Your task to perform on an android device: open chrome privacy settings Image 0: 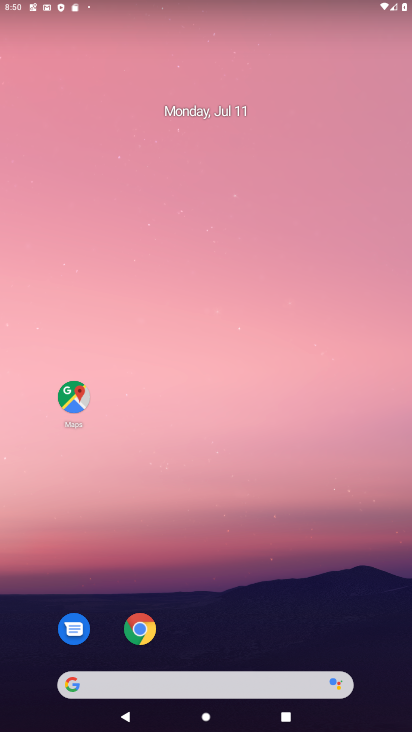
Step 0: click (146, 628)
Your task to perform on an android device: open chrome privacy settings Image 1: 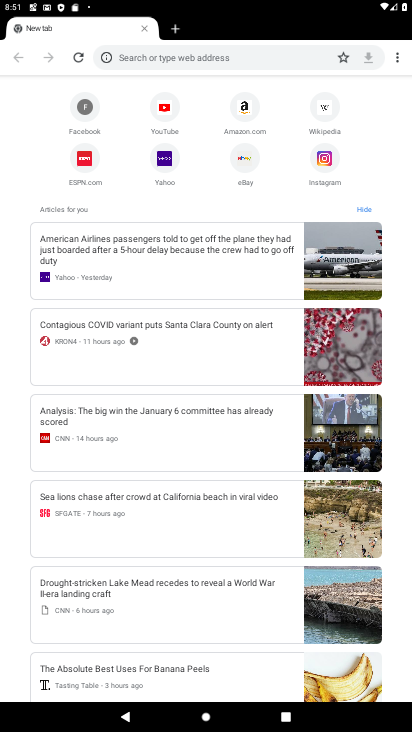
Step 1: click (403, 56)
Your task to perform on an android device: open chrome privacy settings Image 2: 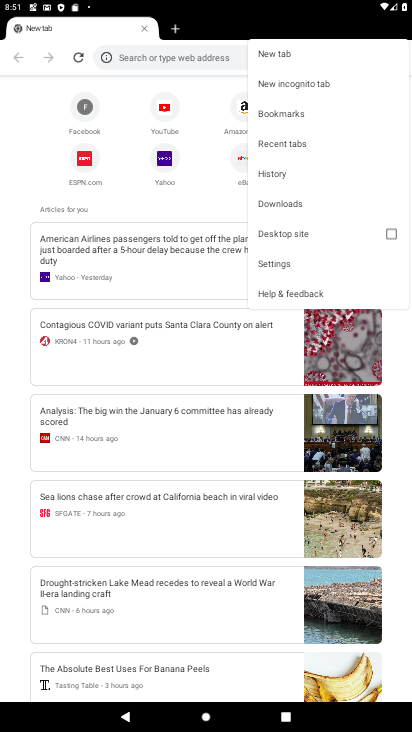
Step 2: click (274, 261)
Your task to perform on an android device: open chrome privacy settings Image 3: 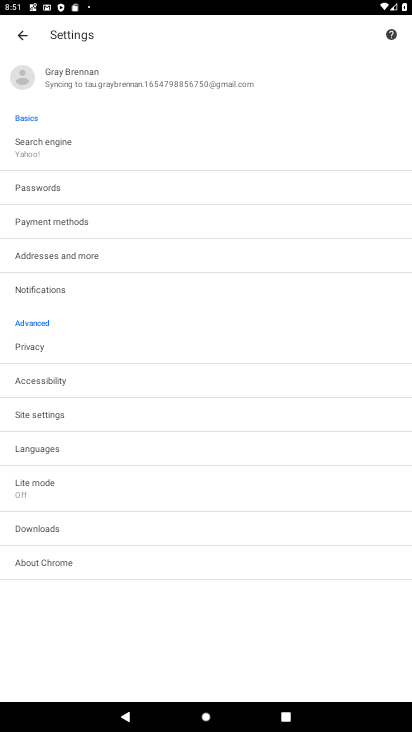
Step 3: click (55, 350)
Your task to perform on an android device: open chrome privacy settings Image 4: 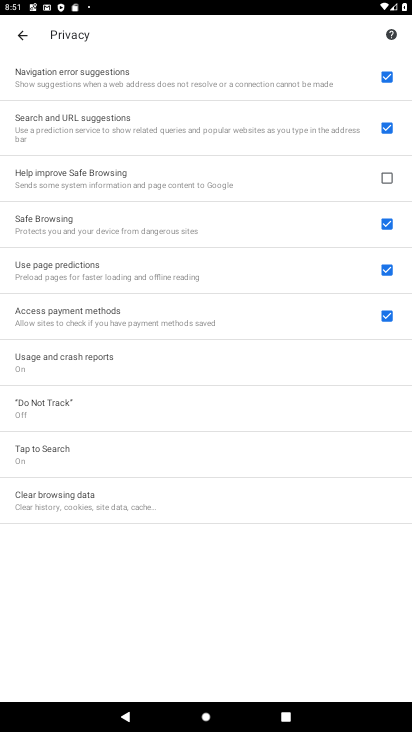
Step 4: task complete